Your task to perform on an android device: Go to accessibility settings Image 0: 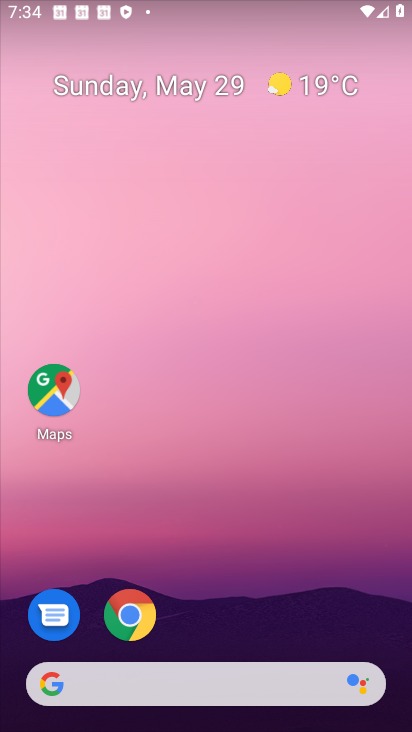
Step 0: drag from (136, 729) to (119, 54)
Your task to perform on an android device: Go to accessibility settings Image 1: 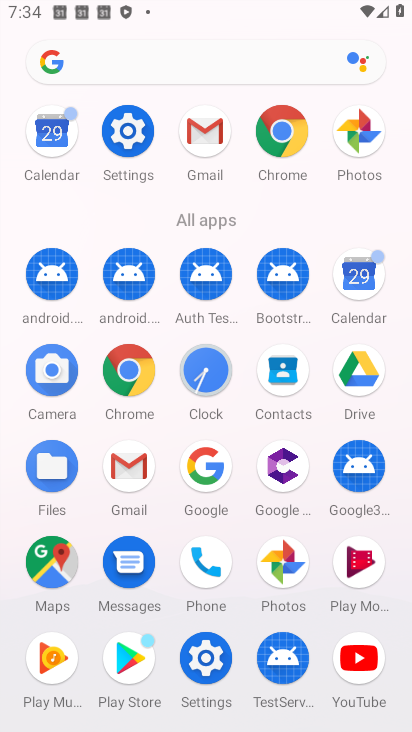
Step 1: click (220, 676)
Your task to perform on an android device: Go to accessibility settings Image 2: 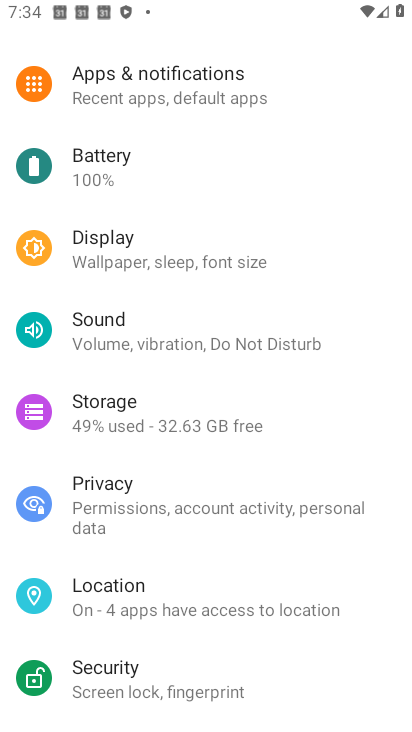
Step 2: drag from (276, 688) to (264, 185)
Your task to perform on an android device: Go to accessibility settings Image 3: 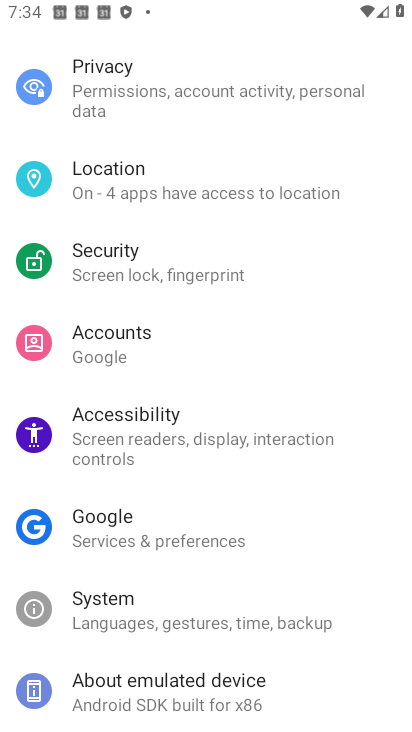
Step 3: click (230, 451)
Your task to perform on an android device: Go to accessibility settings Image 4: 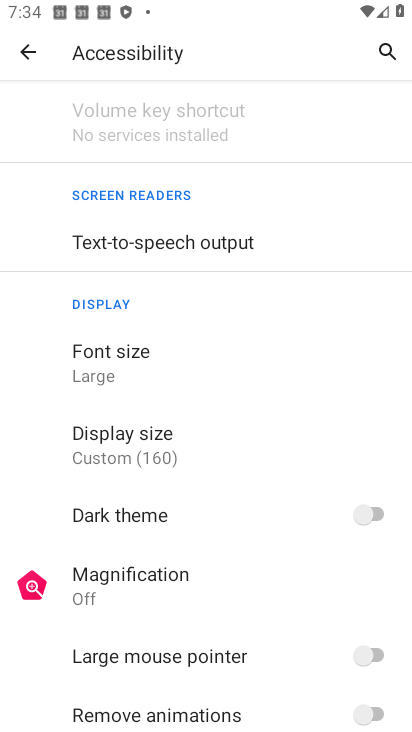
Step 4: task complete